Your task to perform on an android device: choose inbox layout in the gmail app Image 0: 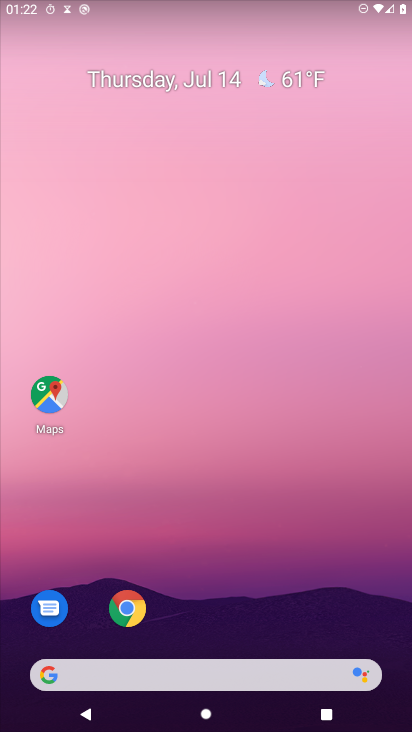
Step 0: press home button
Your task to perform on an android device: choose inbox layout in the gmail app Image 1: 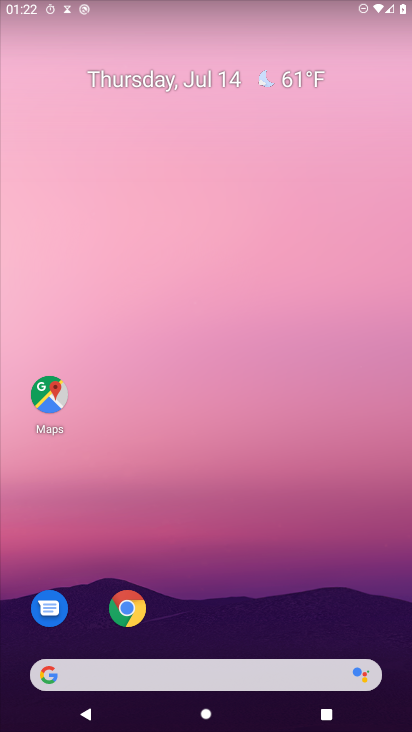
Step 1: drag from (308, 541) to (293, 1)
Your task to perform on an android device: choose inbox layout in the gmail app Image 2: 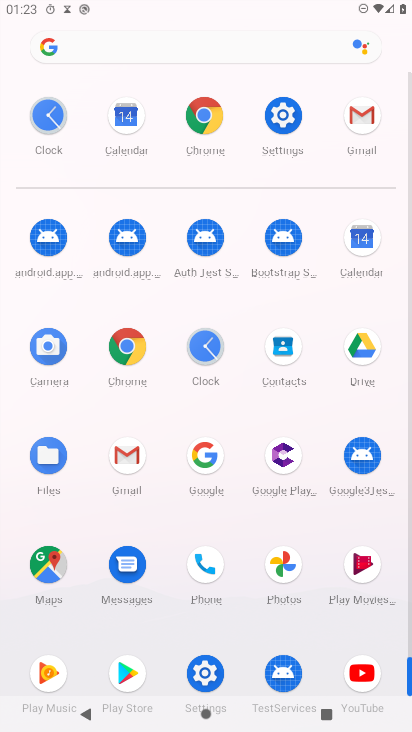
Step 2: click (343, 116)
Your task to perform on an android device: choose inbox layout in the gmail app Image 3: 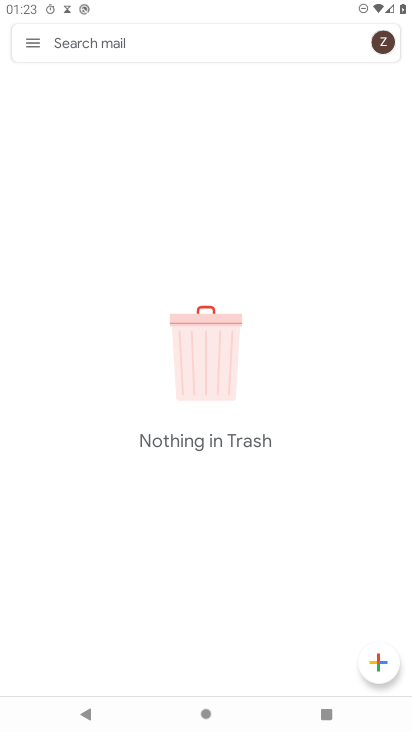
Step 3: click (36, 44)
Your task to perform on an android device: choose inbox layout in the gmail app Image 4: 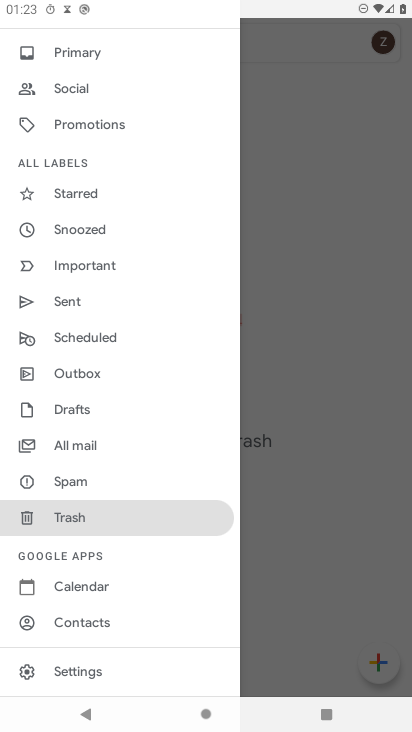
Step 4: click (69, 671)
Your task to perform on an android device: choose inbox layout in the gmail app Image 5: 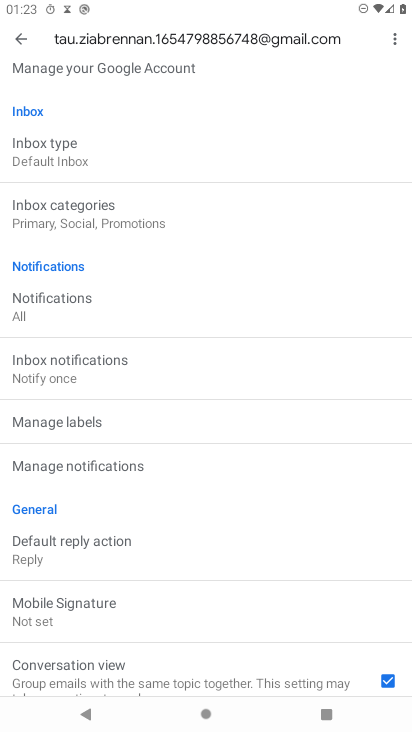
Step 5: click (56, 147)
Your task to perform on an android device: choose inbox layout in the gmail app Image 6: 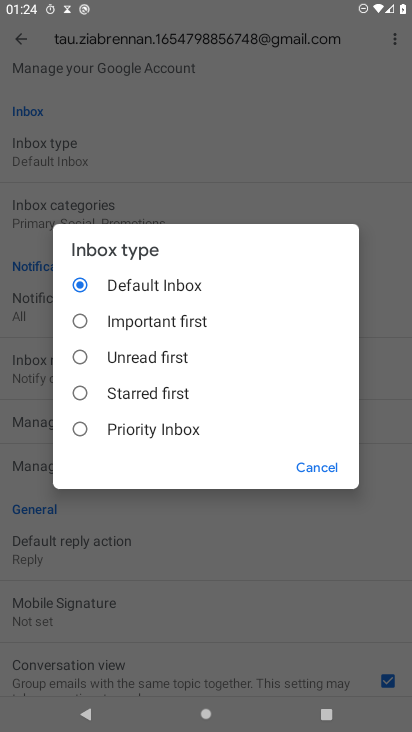
Step 6: task complete